Your task to perform on an android device: clear history in the chrome app Image 0: 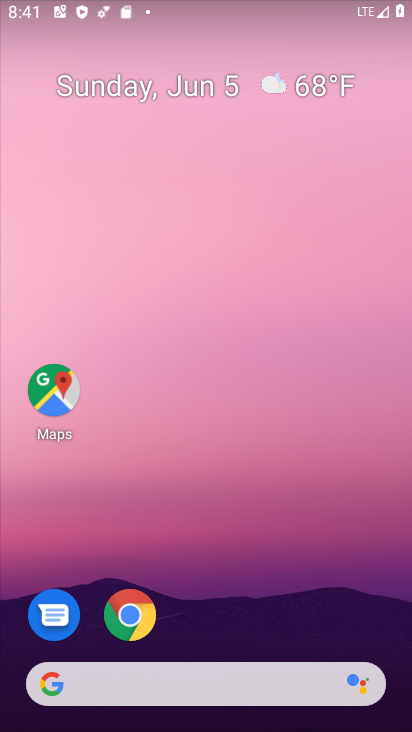
Step 0: click (142, 625)
Your task to perform on an android device: clear history in the chrome app Image 1: 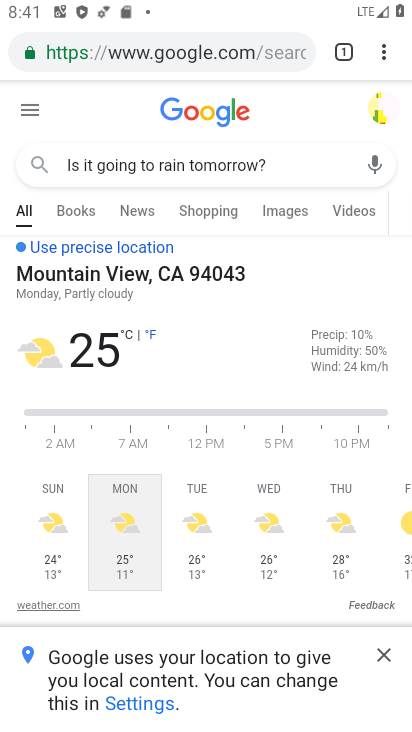
Step 1: click (379, 45)
Your task to perform on an android device: clear history in the chrome app Image 2: 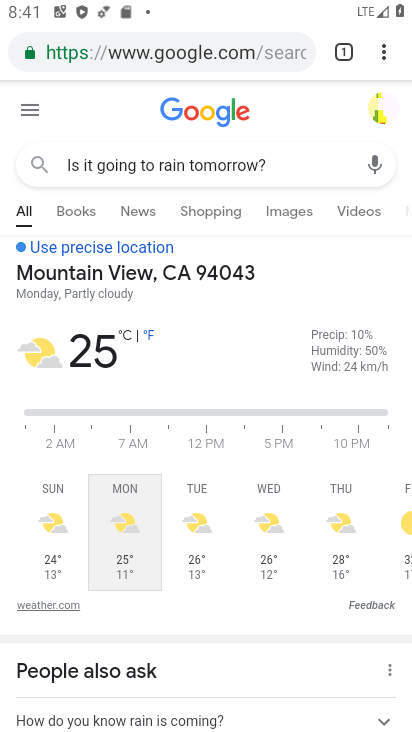
Step 2: drag from (374, 53) to (222, 293)
Your task to perform on an android device: clear history in the chrome app Image 3: 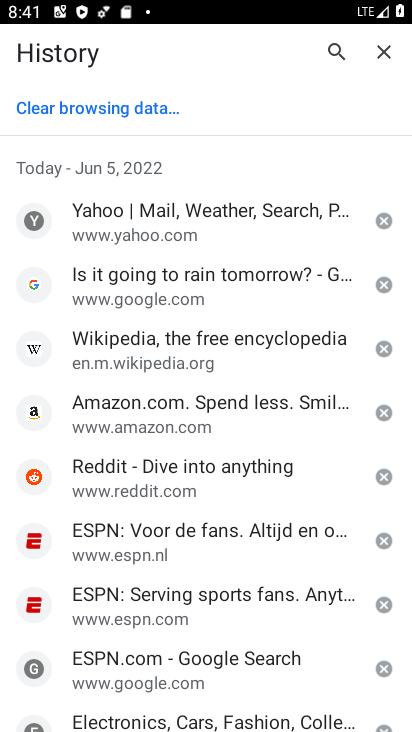
Step 3: click (101, 105)
Your task to perform on an android device: clear history in the chrome app Image 4: 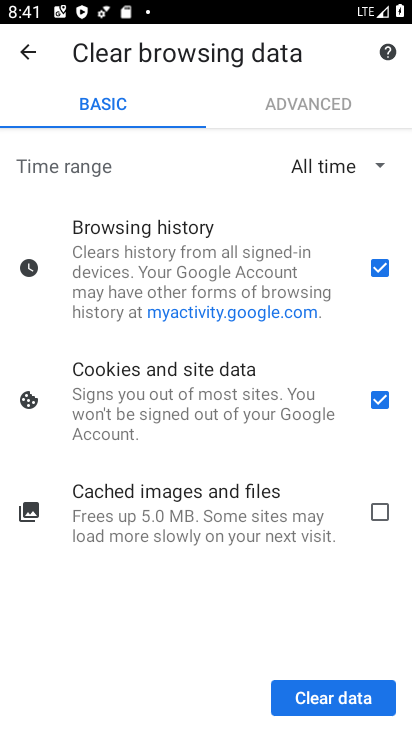
Step 4: click (345, 695)
Your task to perform on an android device: clear history in the chrome app Image 5: 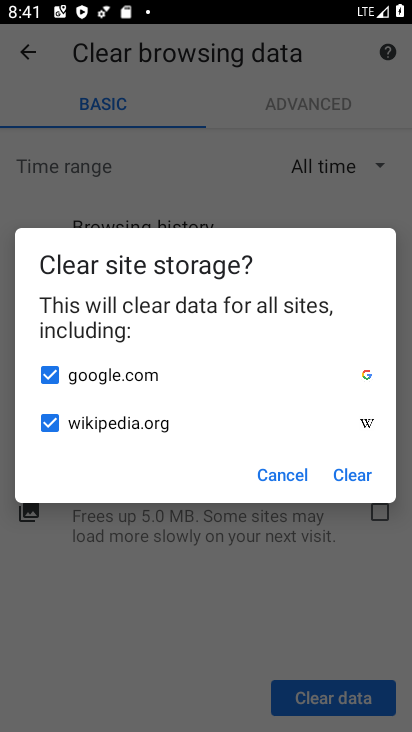
Step 5: click (266, 624)
Your task to perform on an android device: clear history in the chrome app Image 6: 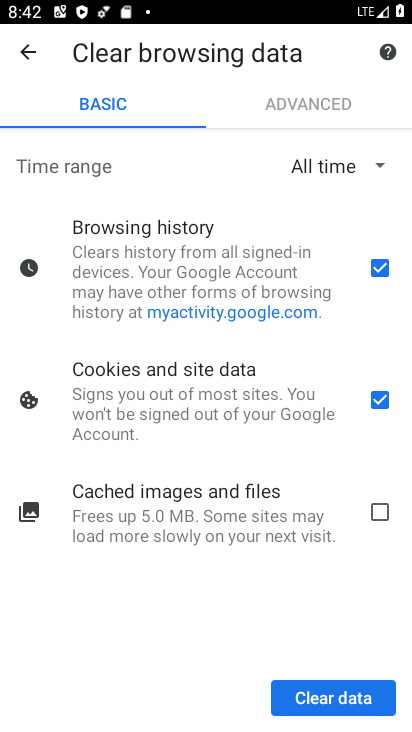
Step 6: click (306, 696)
Your task to perform on an android device: clear history in the chrome app Image 7: 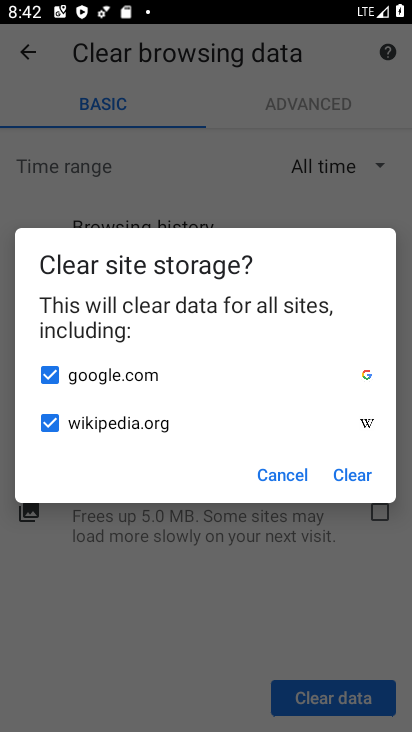
Step 7: click (347, 464)
Your task to perform on an android device: clear history in the chrome app Image 8: 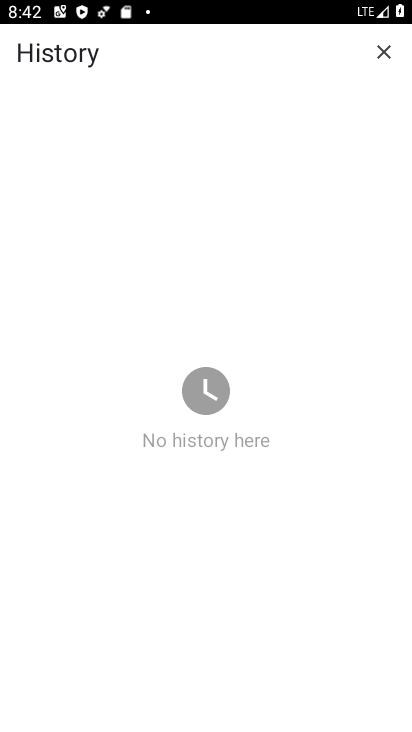
Step 8: task complete